Your task to perform on an android device: create a new album in the google photos Image 0: 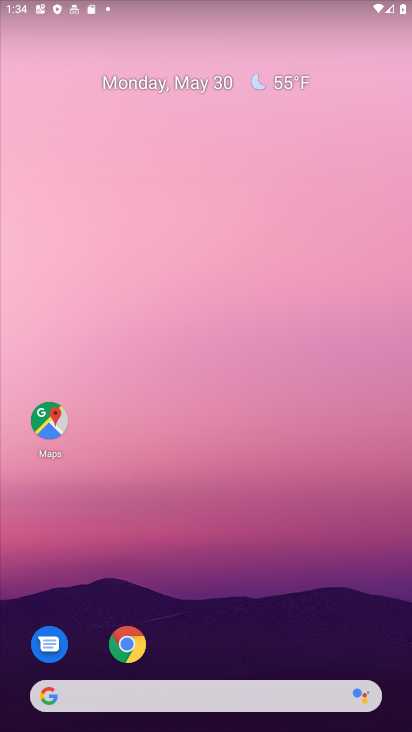
Step 0: drag from (273, 612) to (308, 5)
Your task to perform on an android device: create a new album in the google photos Image 1: 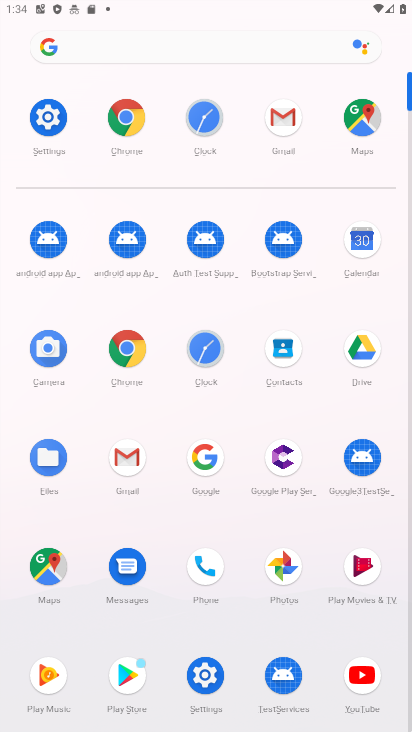
Step 1: click (279, 574)
Your task to perform on an android device: create a new album in the google photos Image 2: 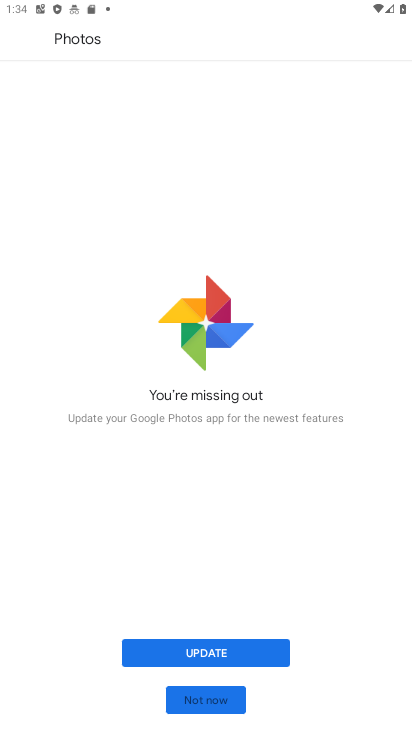
Step 2: click (201, 650)
Your task to perform on an android device: create a new album in the google photos Image 3: 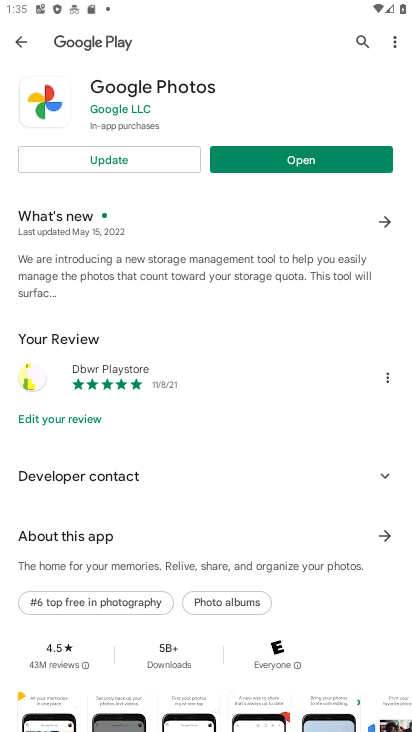
Step 3: click (157, 163)
Your task to perform on an android device: create a new album in the google photos Image 4: 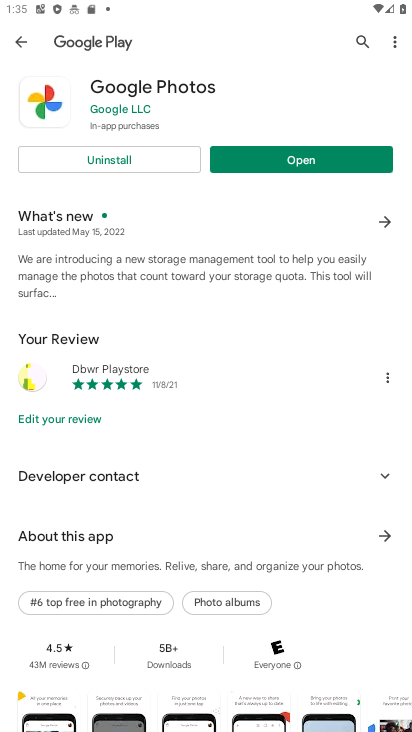
Step 4: click (302, 158)
Your task to perform on an android device: create a new album in the google photos Image 5: 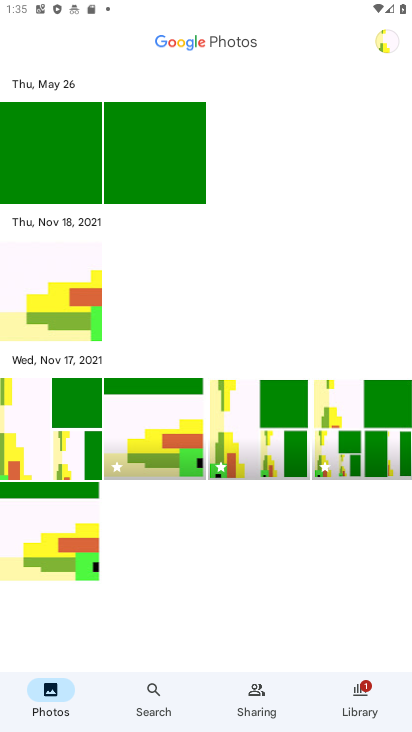
Step 5: press home button
Your task to perform on an android device: create a new album in the google photos Image 6: 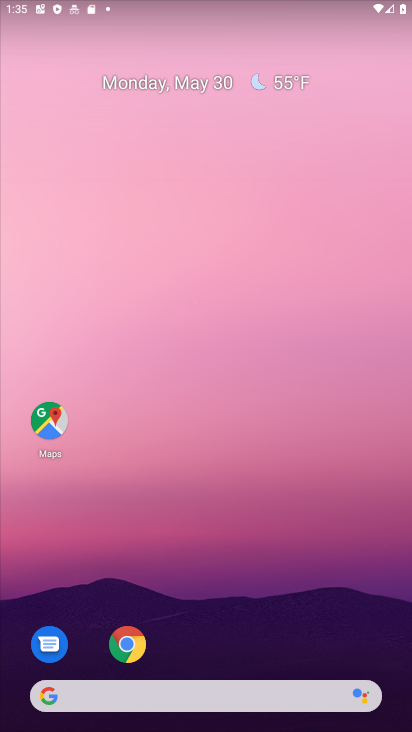
Step 6: drag from (309, 600) to (146, 6)
Your task to perform on an android device: create a new album in the google photos Image 7: 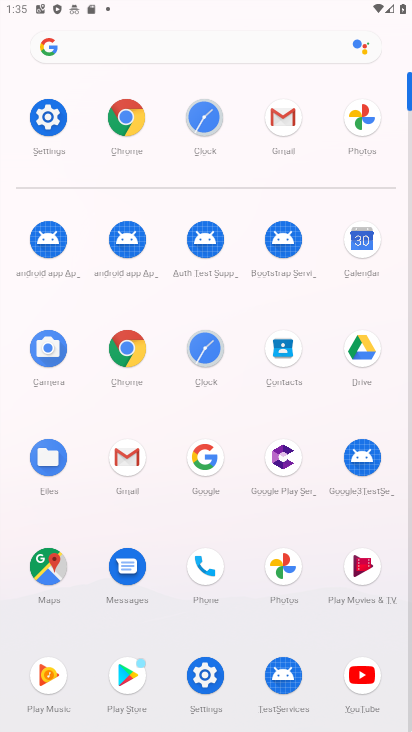
Step 7: click (270, 565)
Your task to perform on an android device: create a new album in the google photos Image 8: 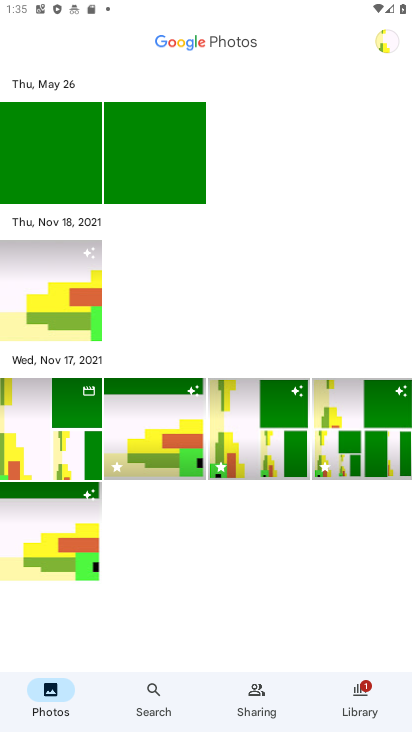
Step 8: task complete